Your task to perform on an android device: Open internet settings Image 0: 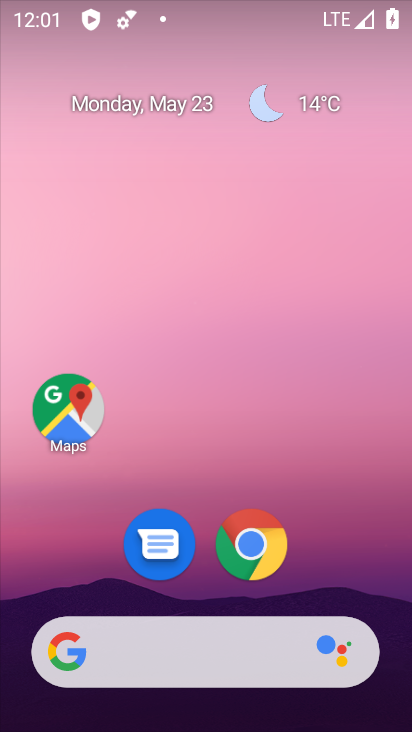
Step 0: drag from (260, 604) to (280, 170)
Your task to perform on an android device: Open internet settings Image 1: 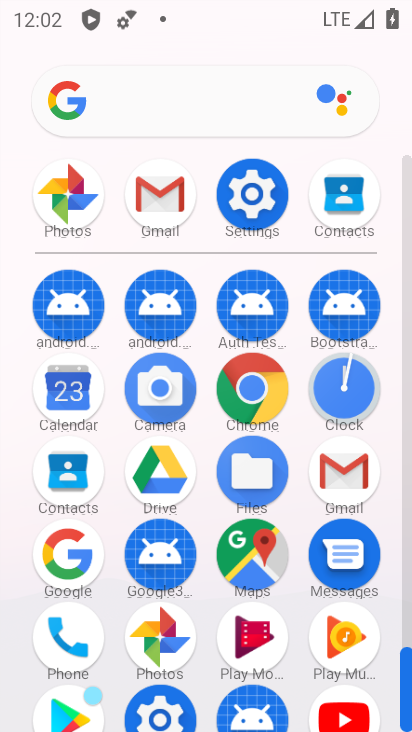
Step 1: press home button
Your task to perform on an android device: Open internet settings Image 2: 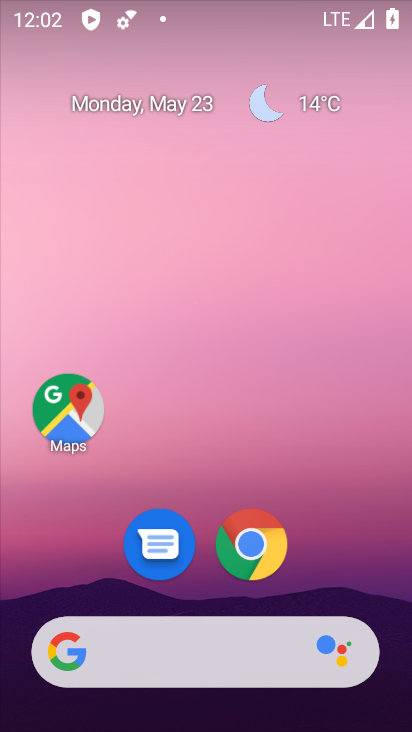
Step 2: drag from (202, 598) to (278, 33)
Your task to perform on an android device: Open internet settings Image 3: 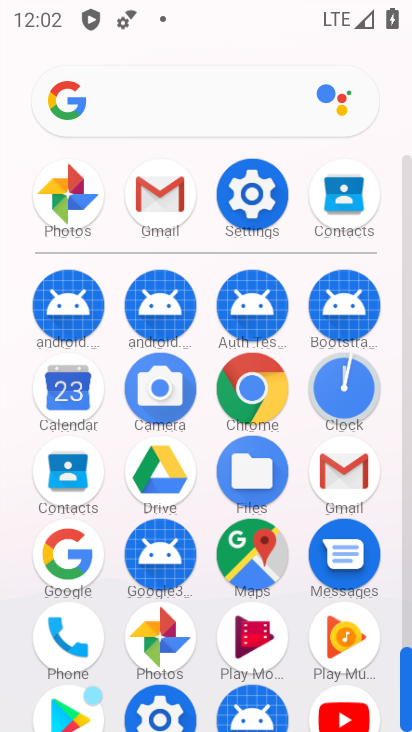
Step 3: click (247, 202)
Your task to perform on an android device: Open internet settings Image 4: 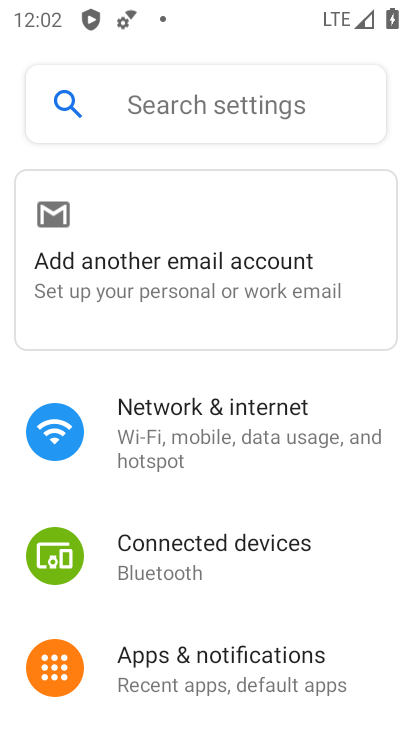
Step 4: click (163, 411)
Your task to perform on an android device: Open internet settings Image 5: 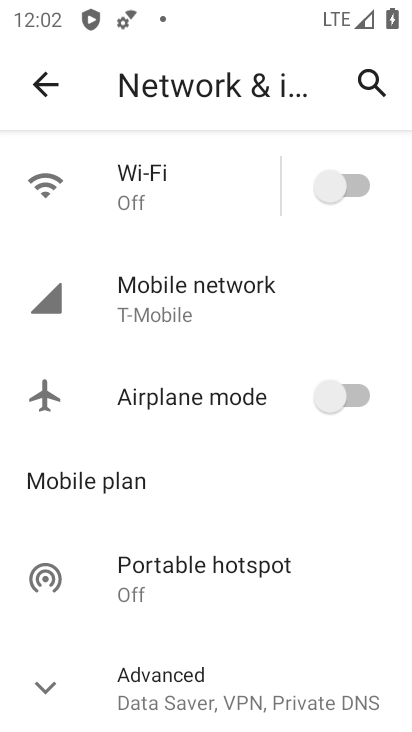
Step 5: task complete